Your task to perform on an android device: Open a new Chrome private tab Image 0: 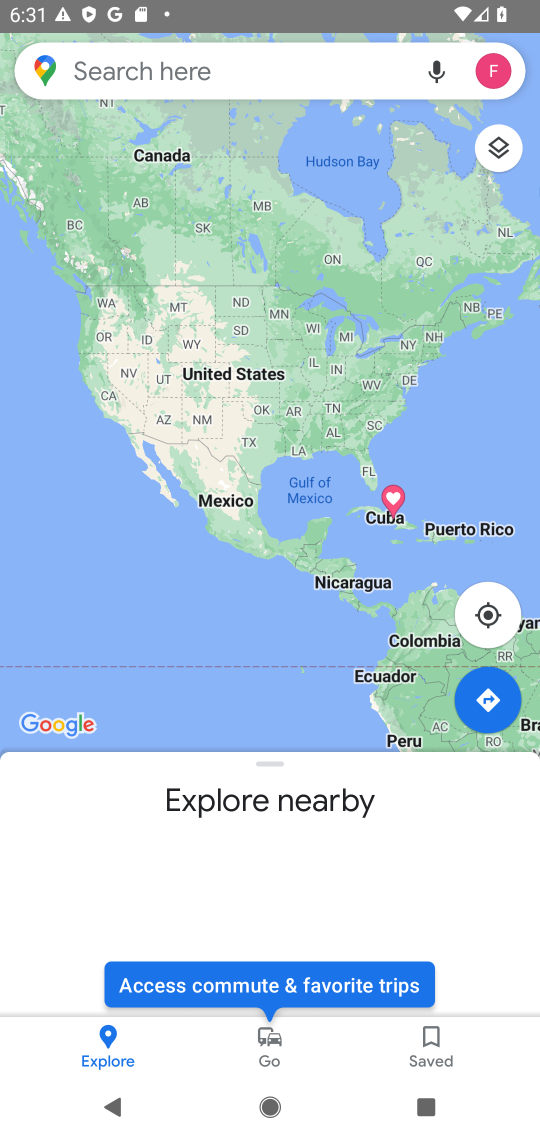
Step 0: press home button
Your task to perform on an android device: Open a new Chrome private tab Image 1: 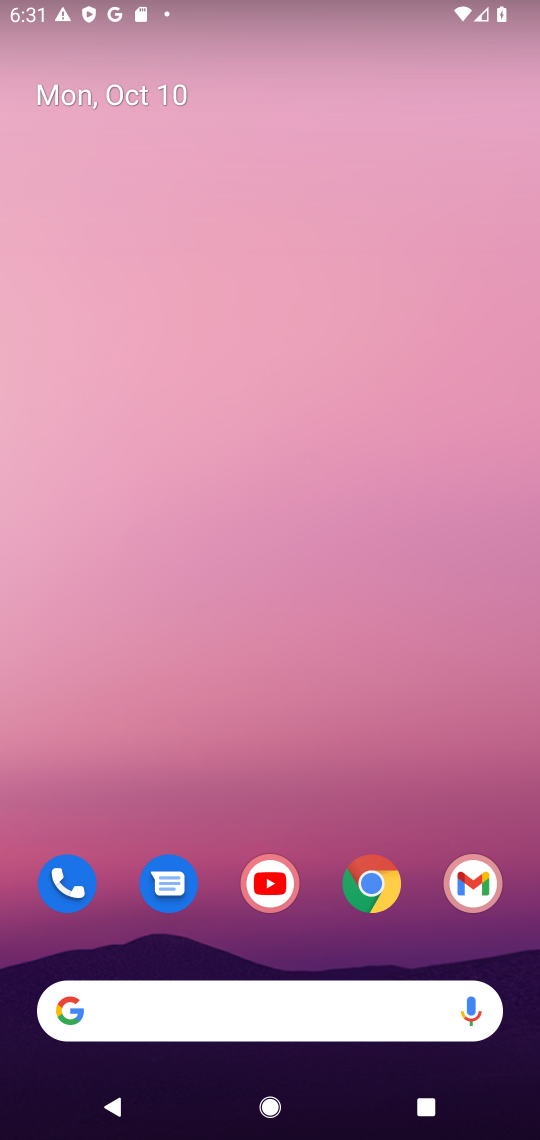
Step 1: drag from (299, 1084) to (421, 64)
Your task to perform on an android device: Open a new Chrome private tab Image 2: 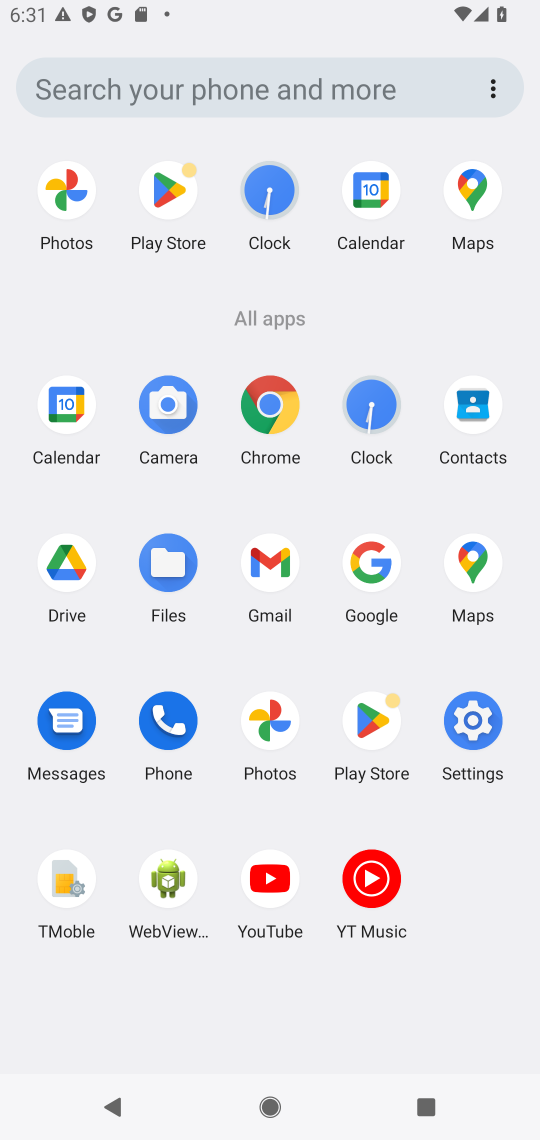
Step 2: click (269, 420)
Your task to perform on an android device: Open a new Chrome private tab Image 3: 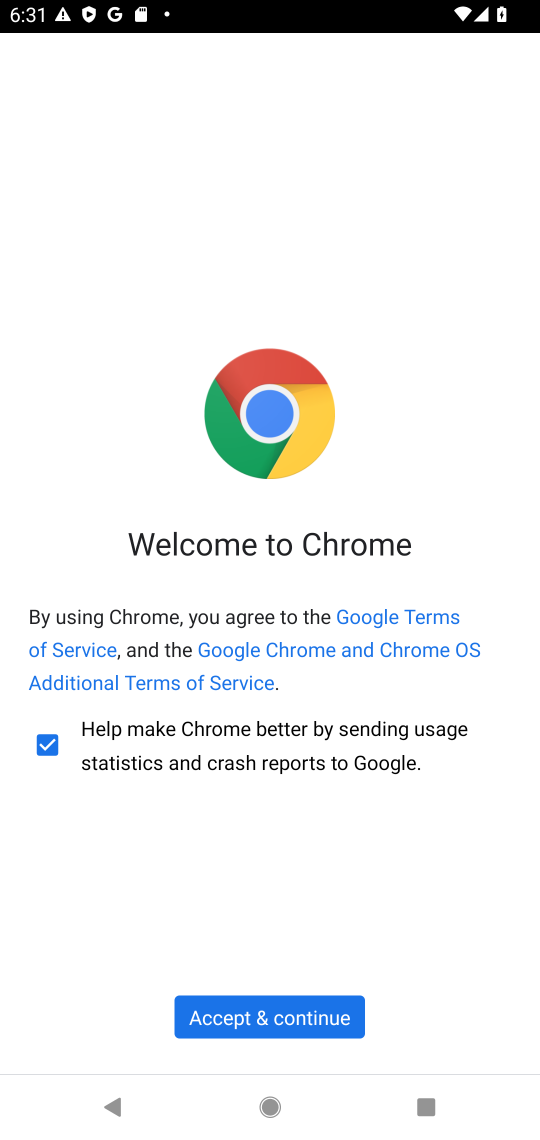
Step 3: click (279, 1002)
Your task to perform on an android device: Open a new Chrome private tab Image 4: 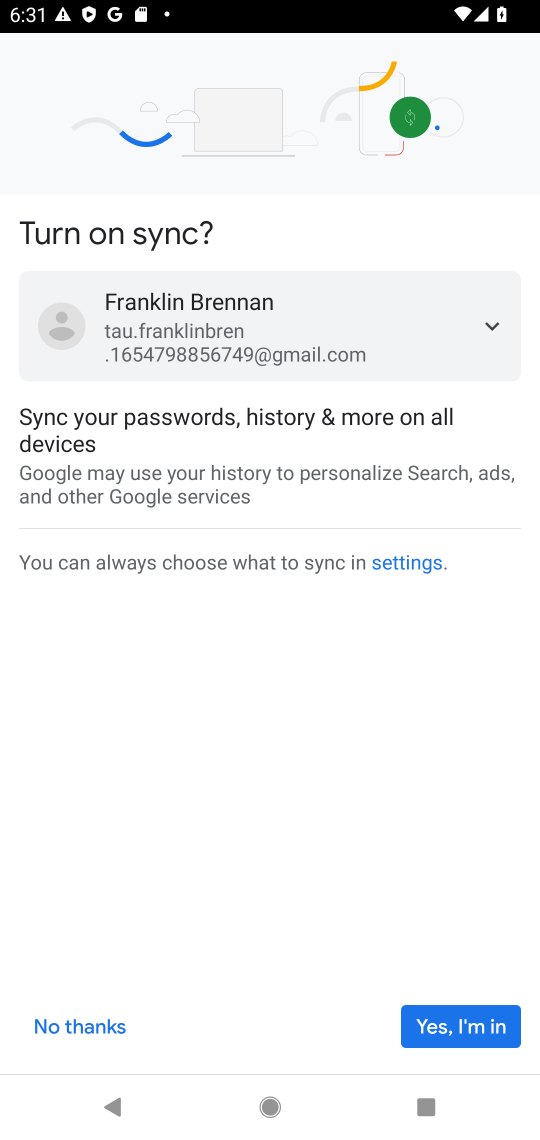
Step 4: click (471, 1031)
Your task to perform on an android device: Open a new Chrome private tab Image 5: 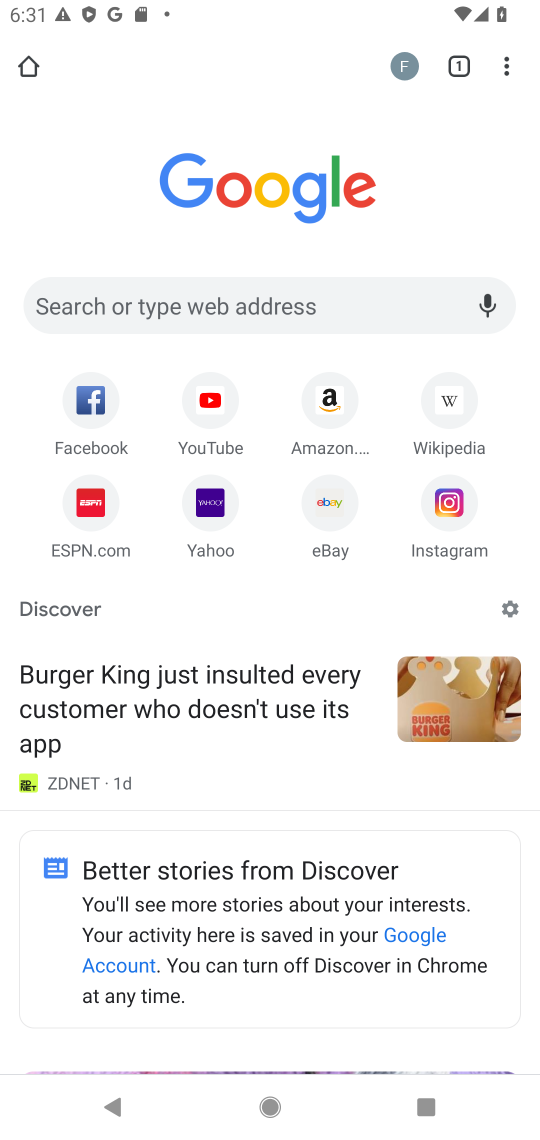
Step 5: drag from (454, 66) to (454, 290)
Your task to perform on an android device: Open a new Chrome private tab Image 6: 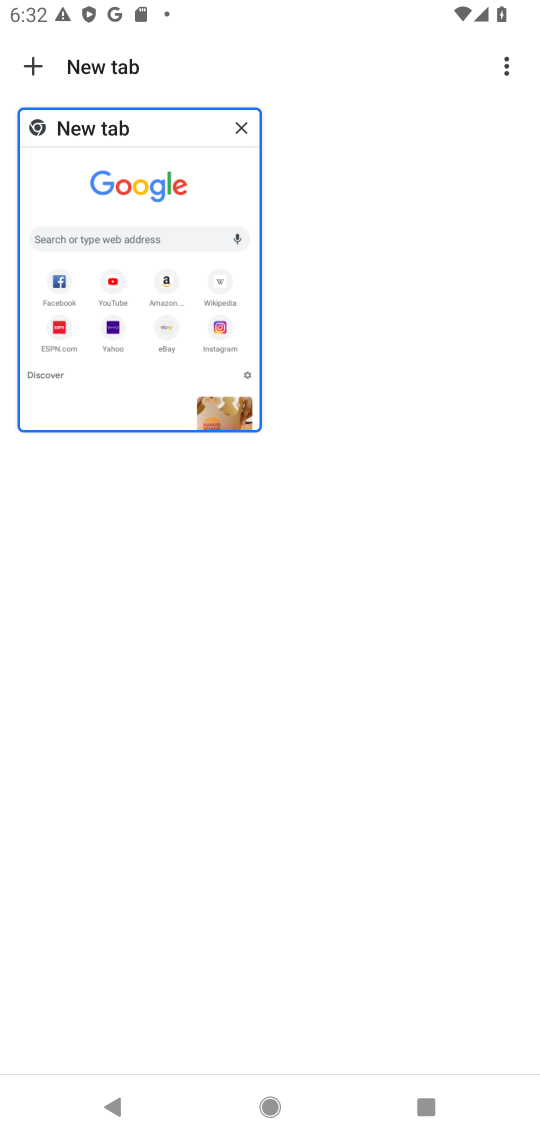
Step 6: click (116, 255)
Your task to perform on an android device: Open a new Chrome private tab Image 7: 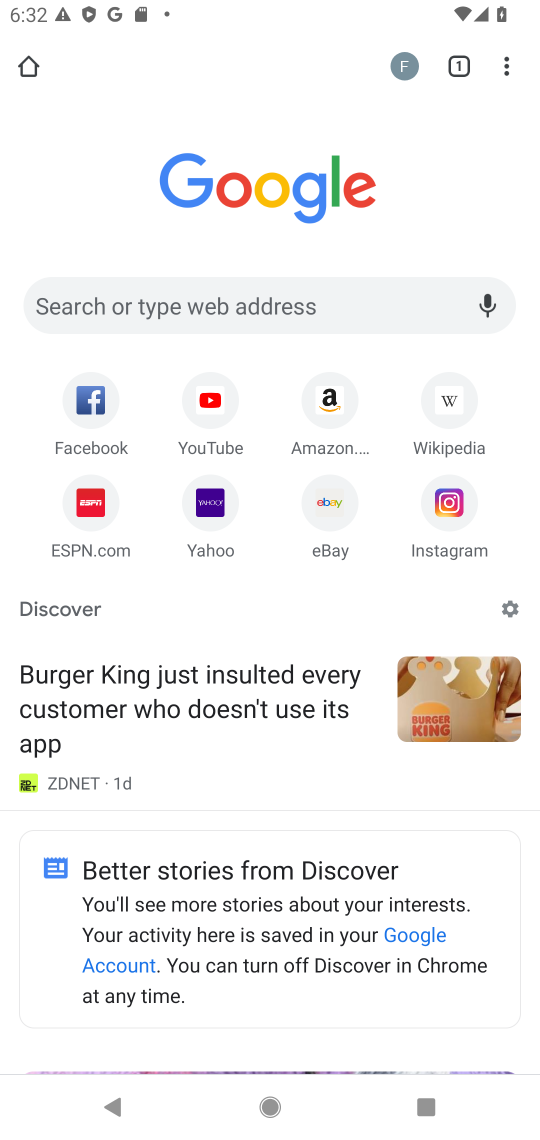
Step 7: click (504, 71)
Your task to perform on an android device: Open a new Chrome private tab Image 8: 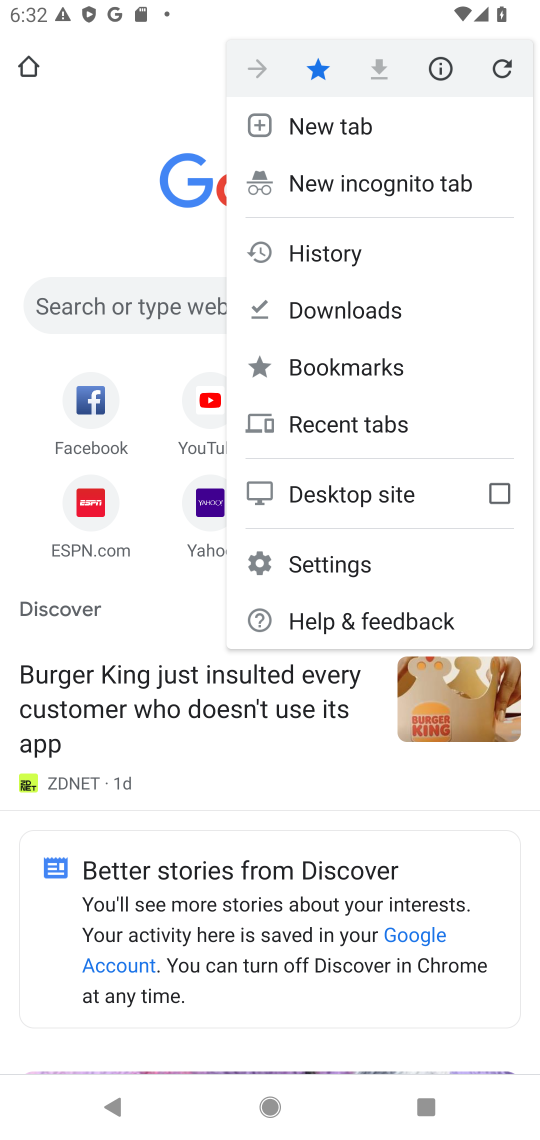
Step 8: click (397, 188)
Your task to perform on an android device: Open a new Chrome private tab Image 9: 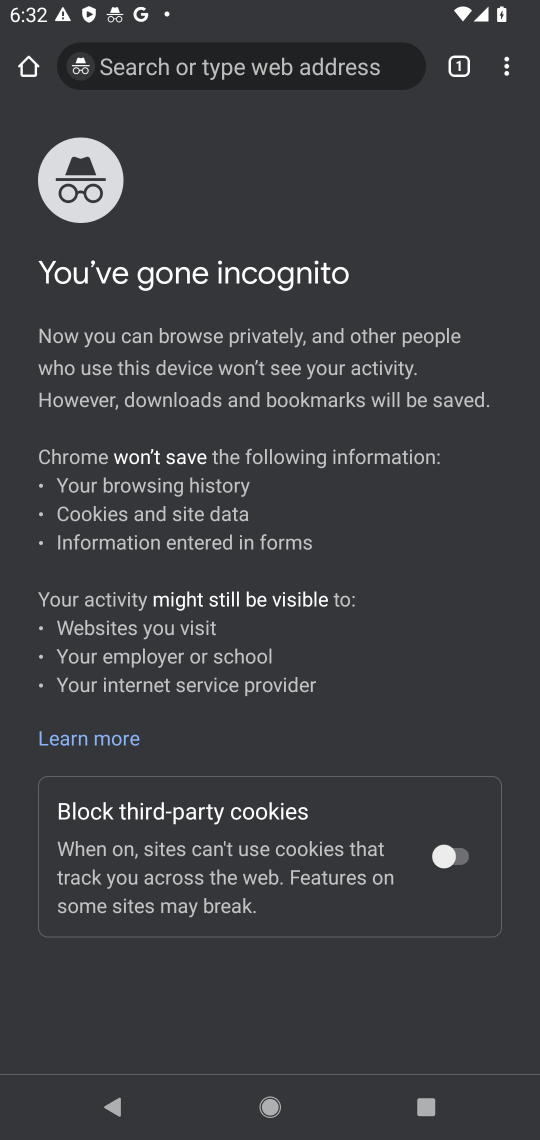
Step 9: task complete